Your task to perform on an android device: delete a single message in the gmail app Image 0: 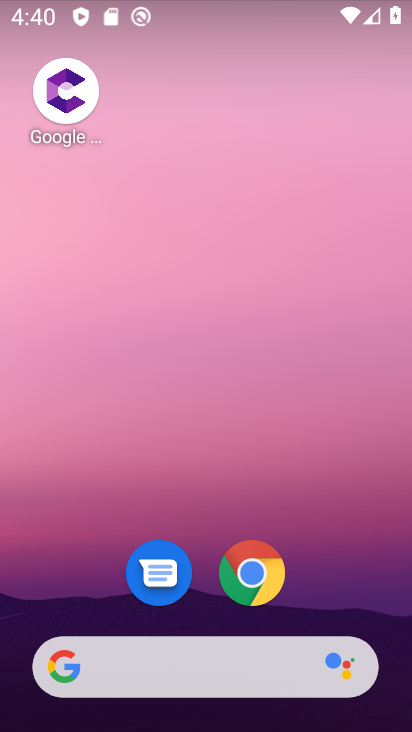
Step 0: task complete